Your task to perform on an android device: Go to battery settings Image 0: 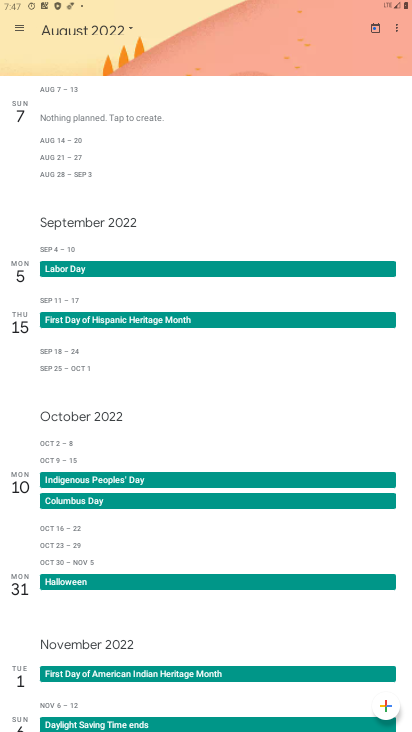
Step 0: press home button
Your task to perform on an android device: Go to battery settings Image 1: 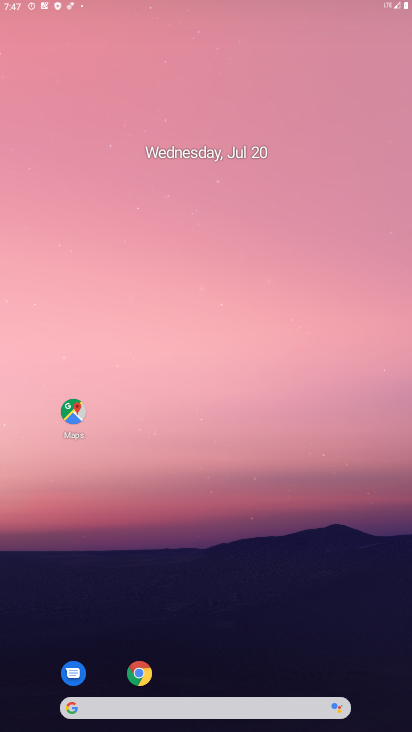
Step 1: drag from (405, 662) to (0, 8)
Your task to perform on an android device: Go to battery settings Image 2: 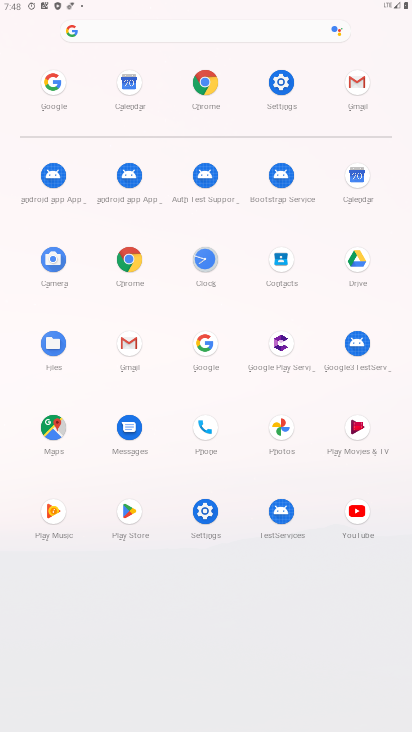
Step 2: click (208, 523)
Your task to perform on an android device: Go to battery settings Image 3: 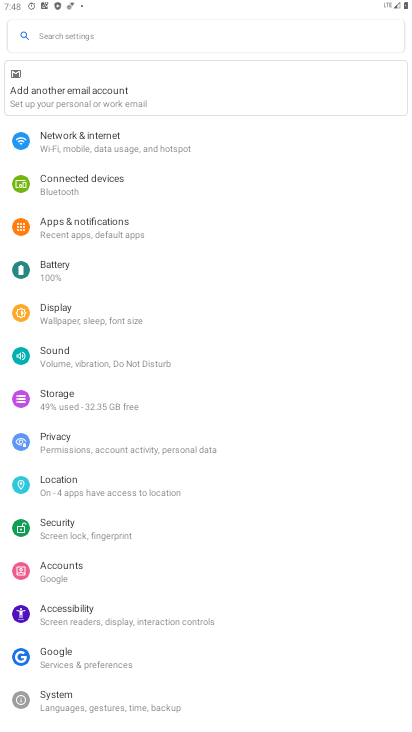
Step 3: click (67, 270)
Your task to perform on an android device: Go to battery settings Image 4: 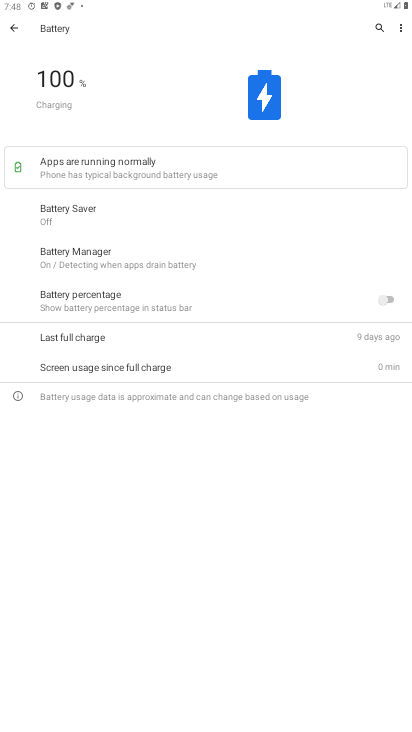
Step 4: task complete